Your task to perform on an android device: install app "Airtel Thanks" Image 0: 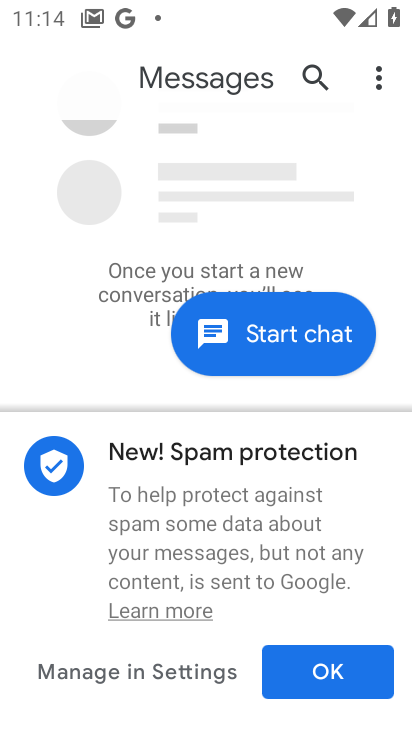
Step 0: press home button
Your task to perform on an android device: install app "Airtel Thanks" Image 1: 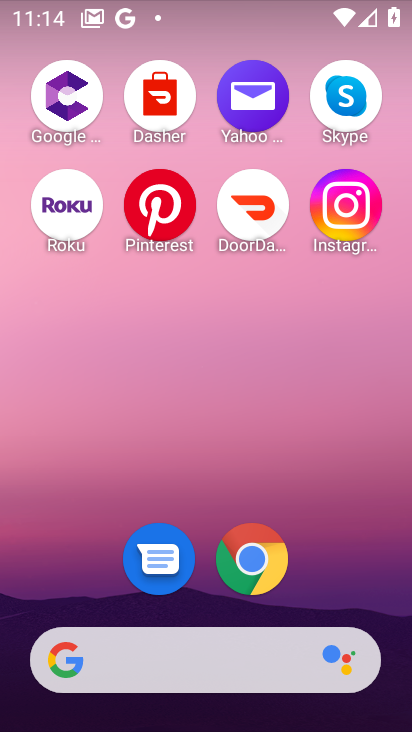
Step 1: drag from (62, 542) to (194, 17)
Your task to perform on an android device: install app "Airtel Thanks" Image 2: 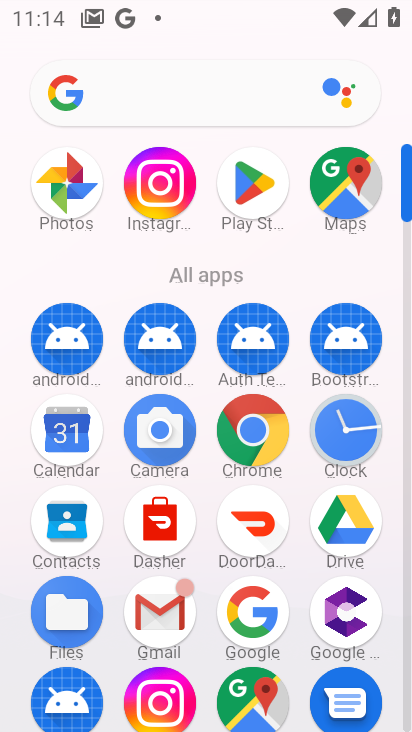
Step 2: click (256, 179)
Your task to perform on an android device: install app "Airtel Thanks" Image 3: 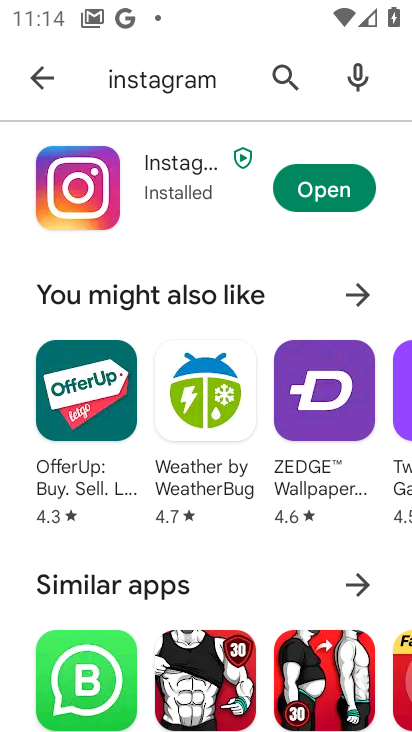
Step 3: click (260, 73)
Your task to perform on an android device: install app "Airtel Thanks" Image 4: 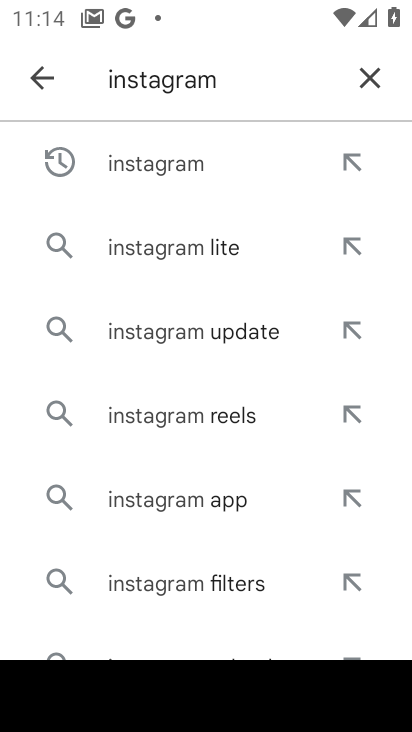
Step 4: click (359, 80)
Your task to perform on an android device: install app "Airtel Thanks" Image 5: 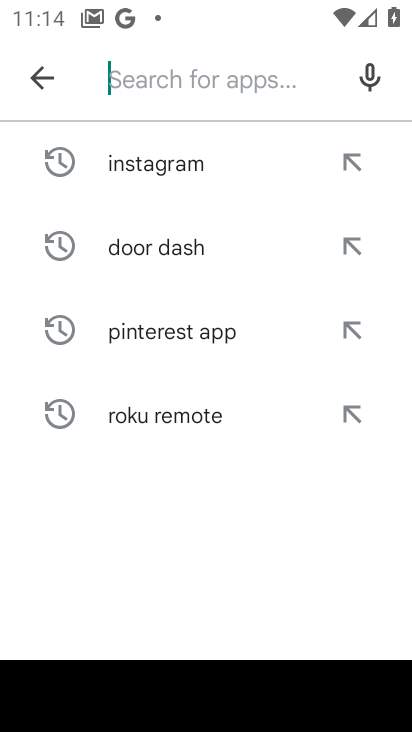
Step 5: click (165, 87)
Your task to perform on an android device: install app "Airtel Thanks" Image 6: 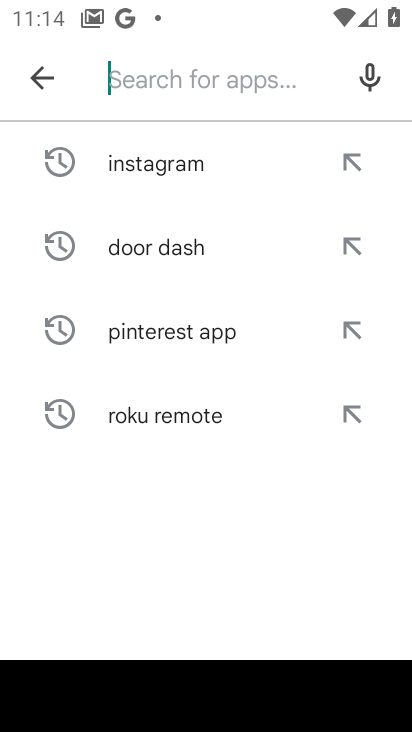
Step 6: type "airtel thanks"
Your task to perform on an android device: install app "Airtel Thanks" Image 7: 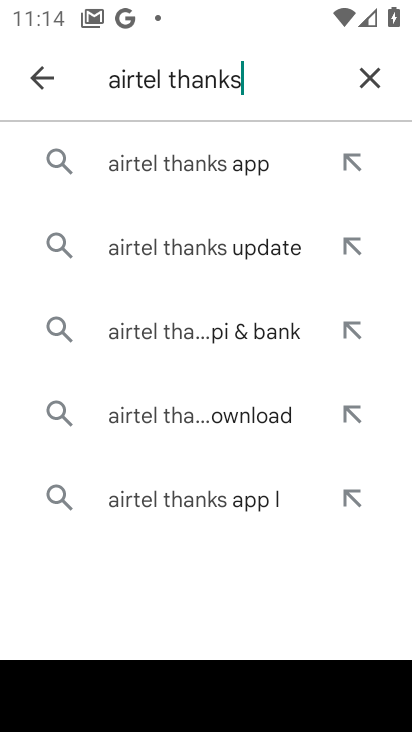
Step 7: click (161, 162)
Your task to perform on an android device: install app "Airtel Thanks" Image 8: 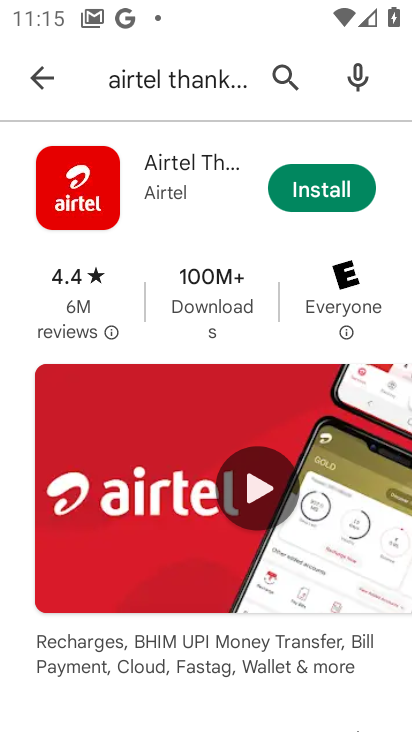
Step 8: click (315, 190)
Your task to perform on an android device: install app "Airtel Thanks" Image 9: 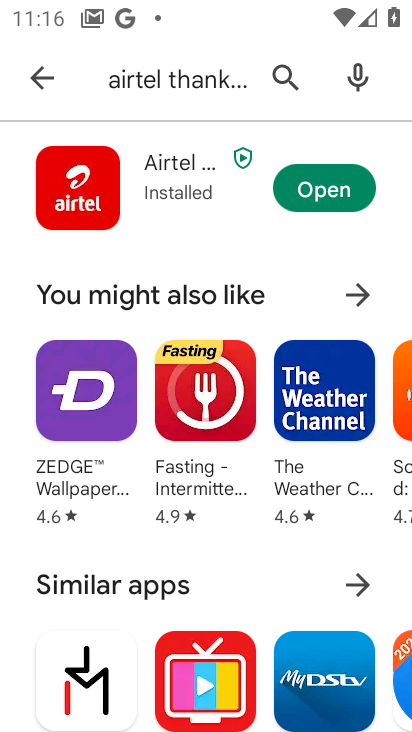
Step 9: click (311, 197)
Your task to perform on an android device: install app "Airtel Thanks" Image 10: 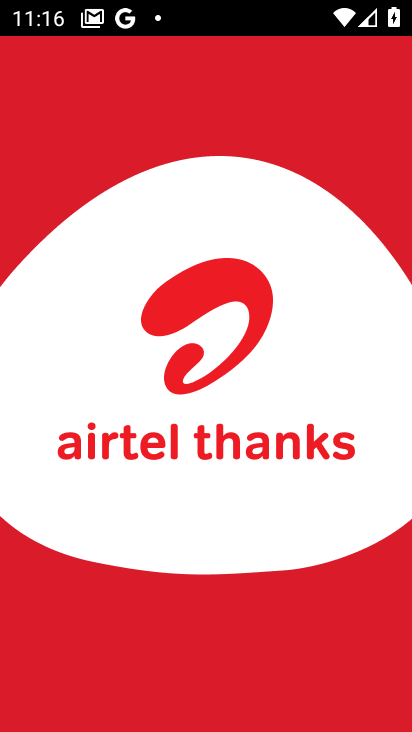
Step 10: task complete